Your task to perform on an android device: star an email in the gmail app Image 0: 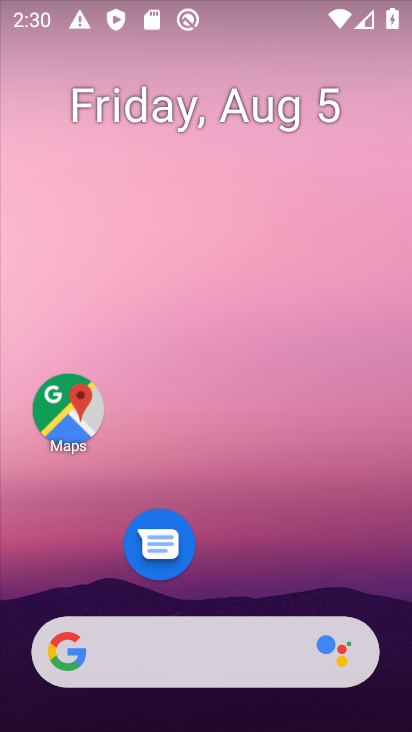
Step 0: drag from (234, 594) to (177, 4)
Your task to perform on an android device: star an email in the gmail app Image 1: 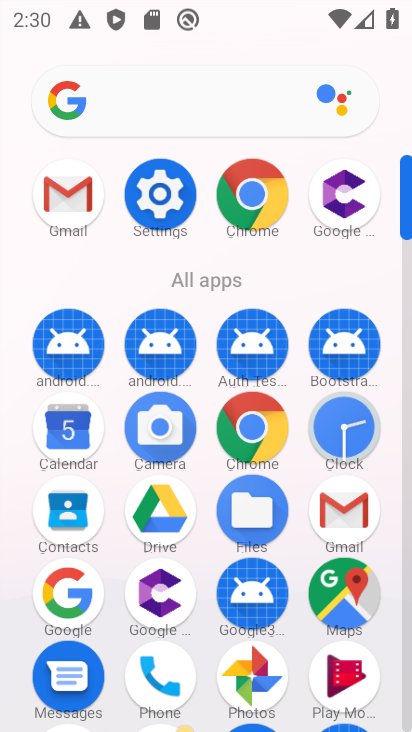
Step 1: click (318, 533)
Your task to perform on an android device: star an email in the gmail app Image 2: 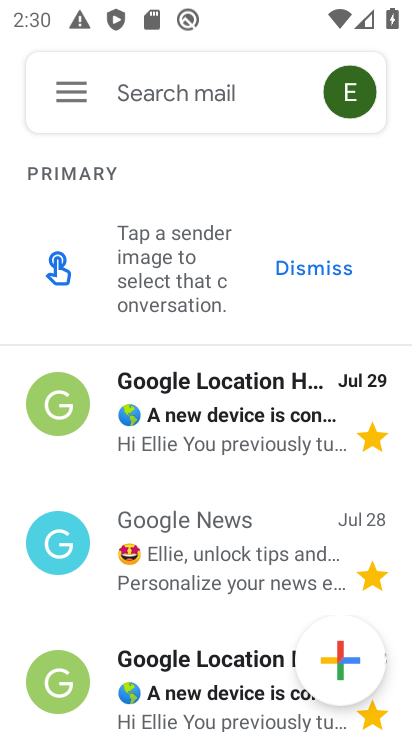
Step 2: task complete